Your task to perform on an android device: choose inbox layout in the gmail app Image 0: 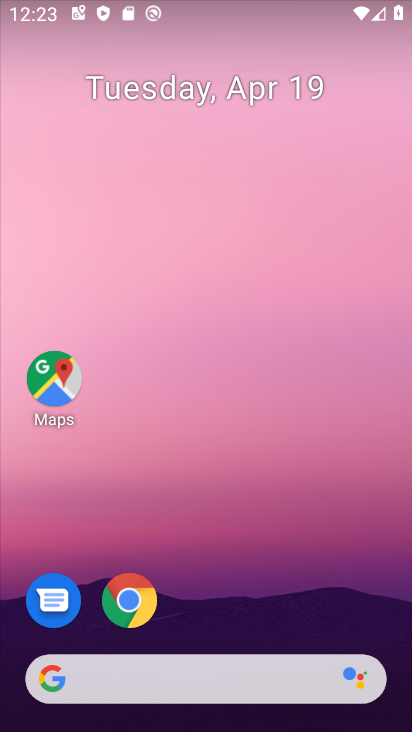
Step 0: drag from (259, 588) to (246, 110)
Your task to perform on an android device: choose inbox layout in the gmail app Image 1: 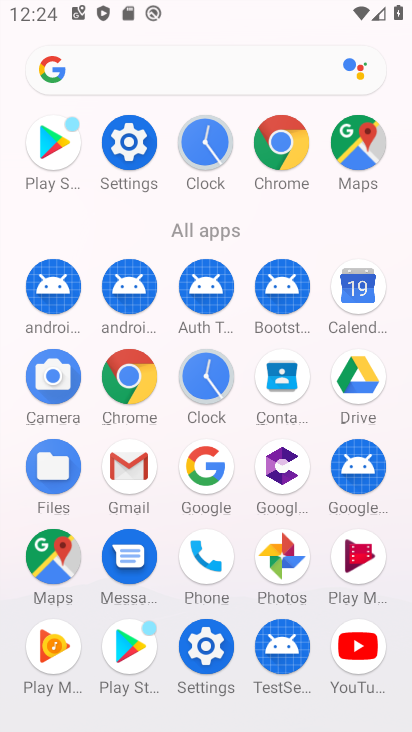
Step 1: click (115, 460)
Your task to perform on an android device: choose inbox layout in the gmail app Image 2: 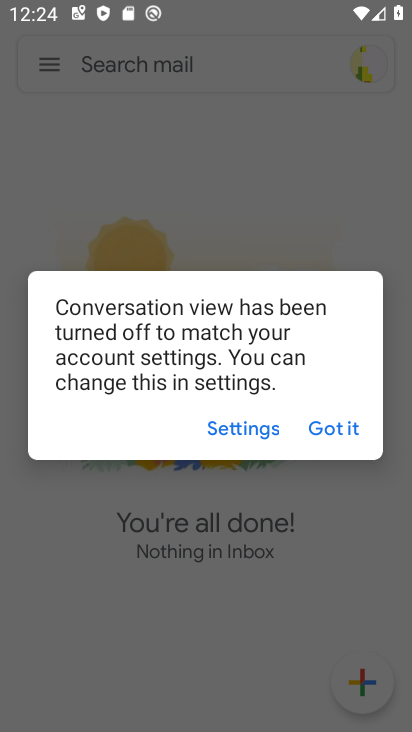
Step 2: click (316, 440)
Your task to perform on an android device: choose inbox layout in the gmail app Image 3: 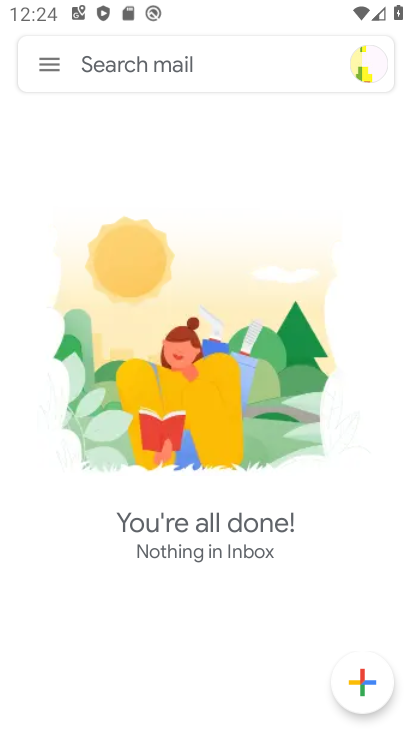
Step 3: task complete